Your task to perform on an android device: Go to eBay Image 0: 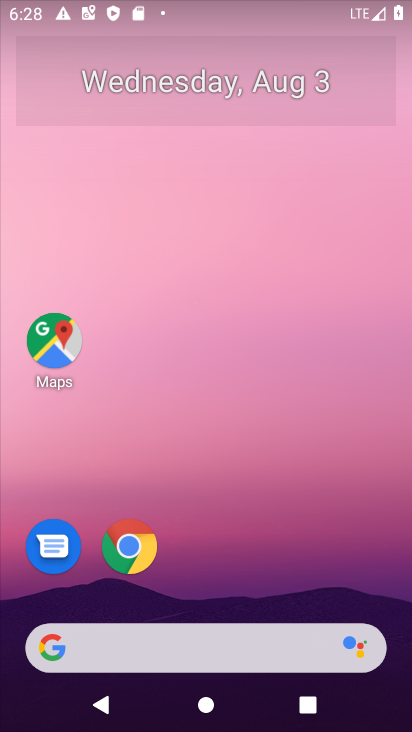
Step 0: press home button
Your task to perform on an android device: Go to eBay Image 1: 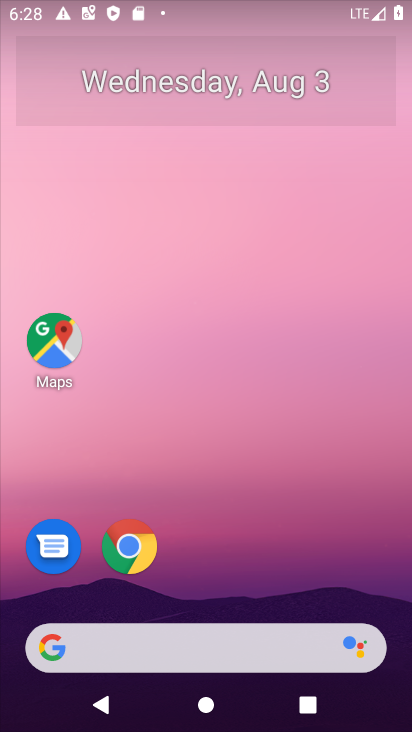
Step 1: click (59, 652)
Your task to perform on an android device: Go to eBay Image 2: 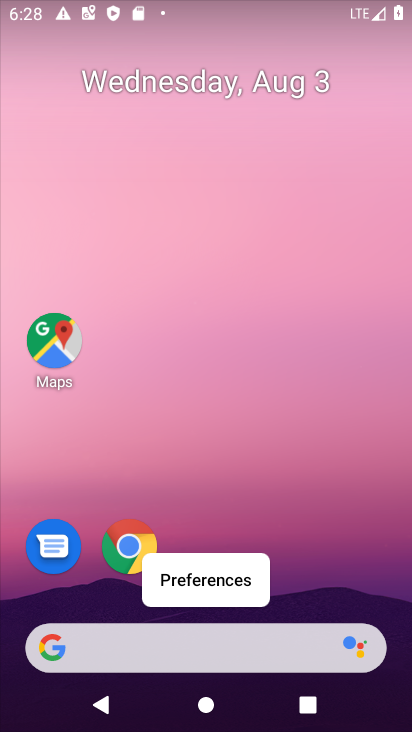
Step 2: click (56, 651)
Your task to perform on an android device: Go to eBay Image 3: 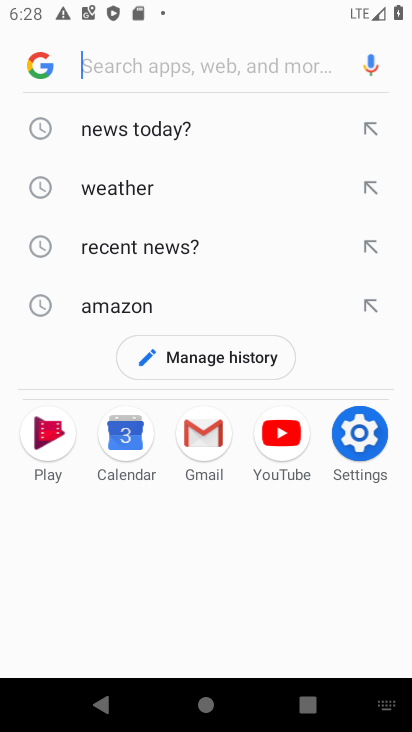
Step 3: type "eBay"
Your task to perform on an android device: Go to eBay Image 4: 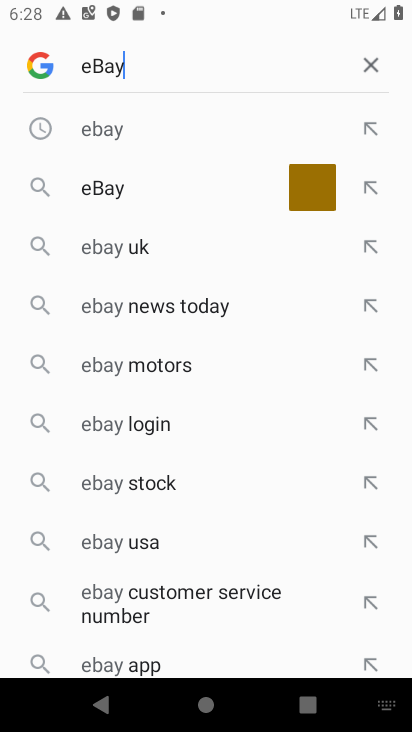
Step 4: press enter
Your task to perform on an android device: Go to eBay Image 5: 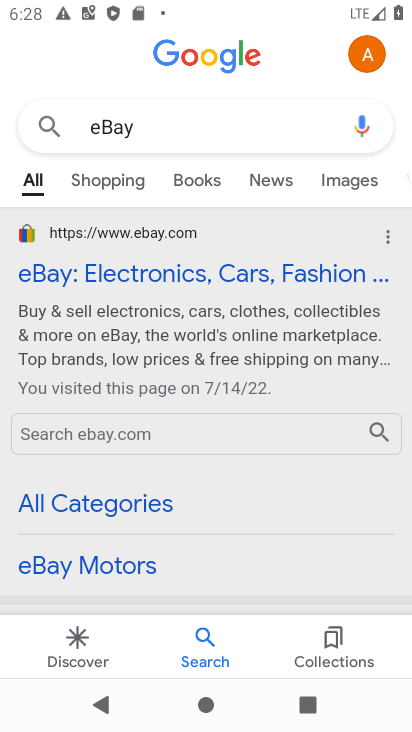
Step 5: click (129, 262)
Your task to perform on an android device: Go to eBay Image 6: 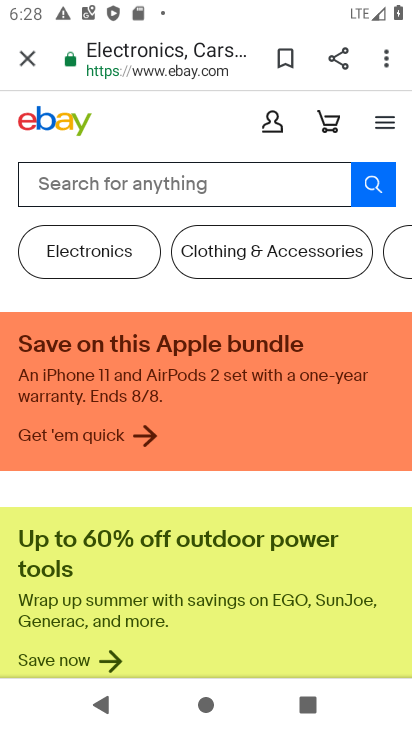
Step 6: task complete